Your task to perform on an android device: turn on bluetooth scan Image 0: 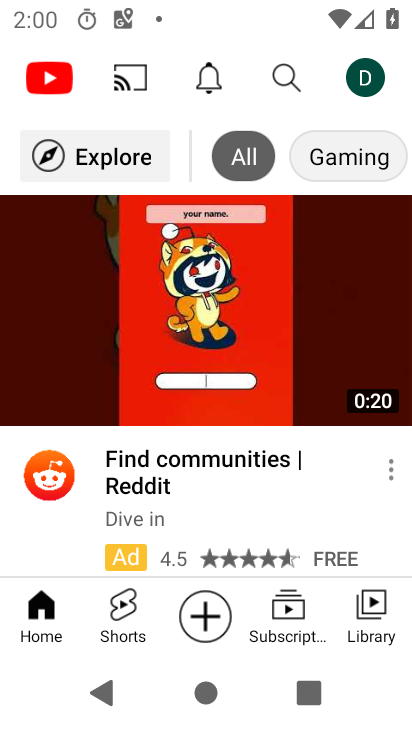
Step 0: press home button
Your task to perform on an android device: turn on bluetooth scan Image 1: 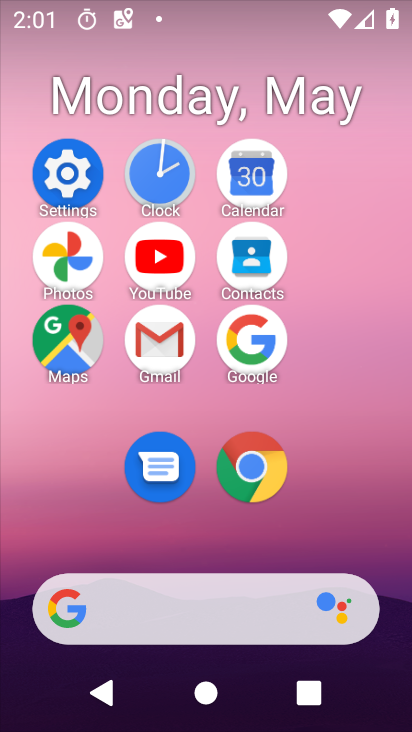
Step 1: click (79, 166)
Your task to perform on an android device: turn on bluetooth scan Image 2: 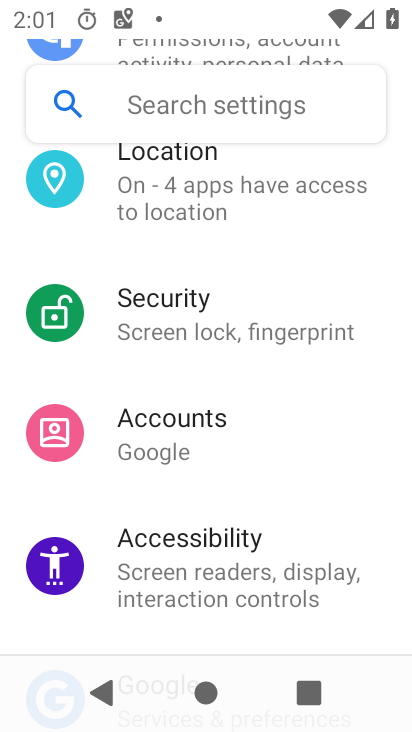
Step 2: drag from (229, 550) to (236, 189)
Your task to perform on an android device: turn on bluetooth scan Image 3: 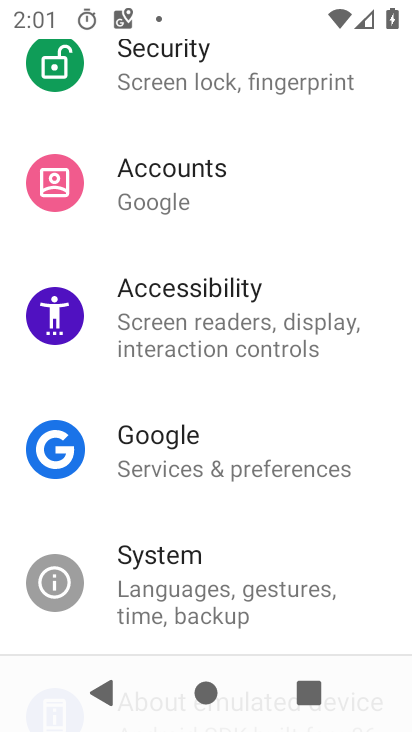
Step 3: drag from (256, 226) to (319, 537)
Your task to perform on an android device: turn on bluetooth scan Image 4: 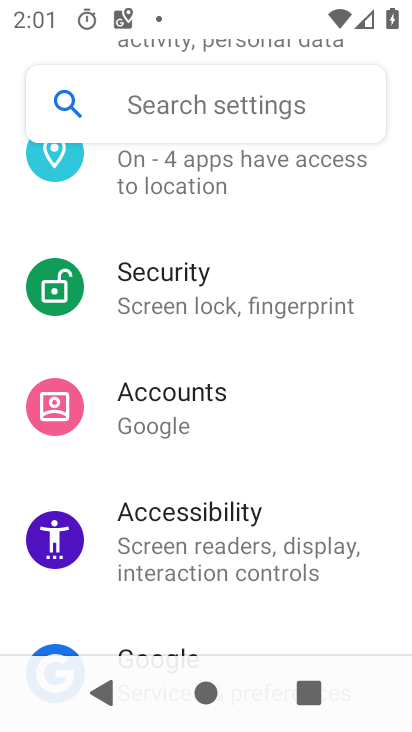
Step 4: drag from (244, 199) to (252, 483)
Your task to perform on an android device: turn on bluetooth scan Image 5: 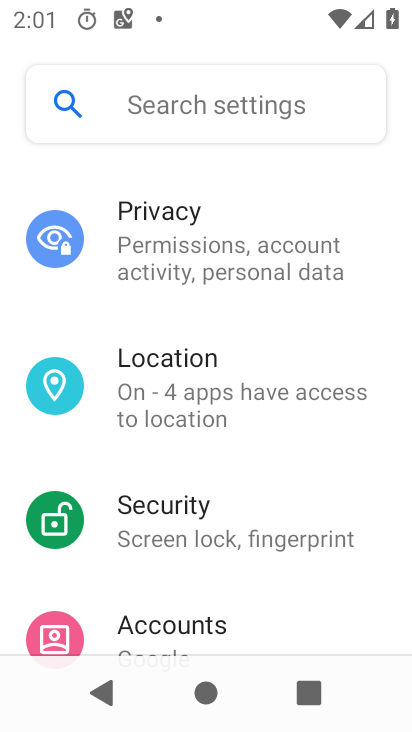
Step 5: click (239, 413)
Your task to perform on an android device: turn on bluetooth scan Image 6: 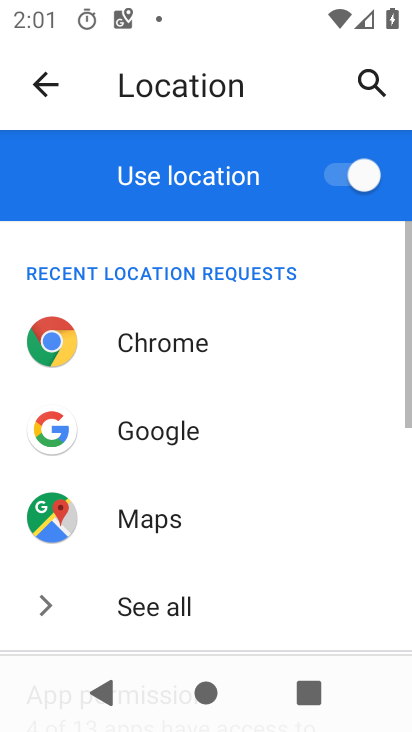
Step 6: drag from (238, 585) to (265, 225)
Your task to perform on an android device: turn on bluetooth scan Image 7: 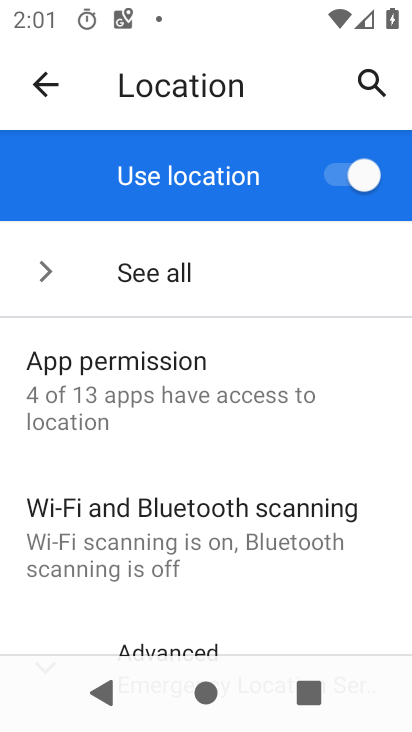
Step 7: click (205, 540)
Your task to perform on an android device: turn on bluetooth scan Image 8: 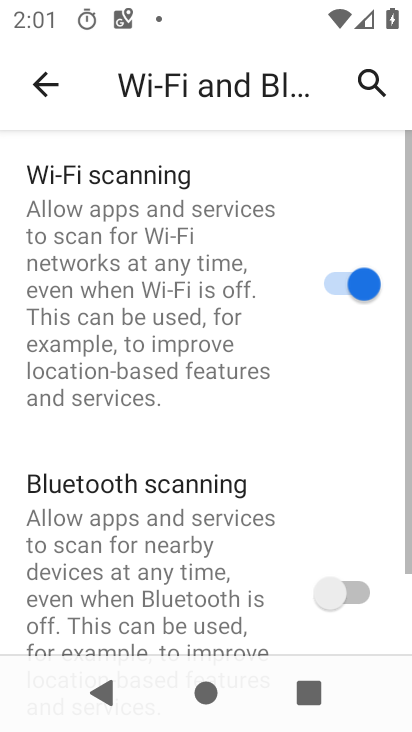
Step 8: click (355, 591)
Your task to perform on an android device: turn on bluetooth scan Image 9: 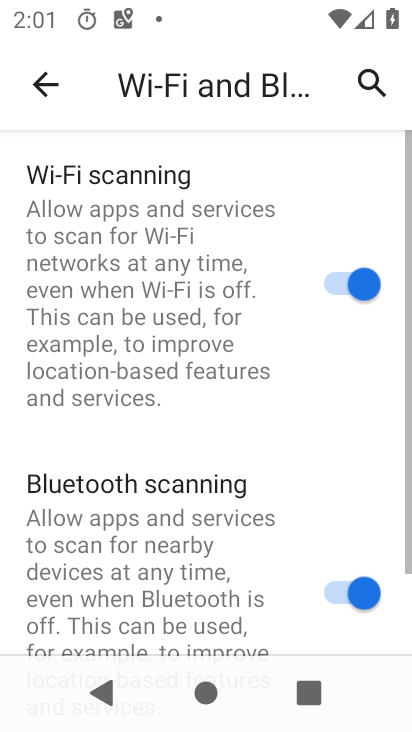
Step 9: task complete